Your task to perform on an android device: set the timer Image 0: 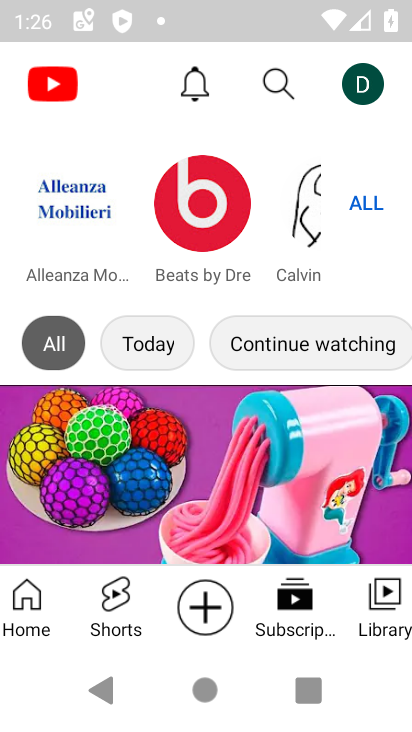
Step 0: press home button
Your task to perform on an android device: set the timer Image 1: 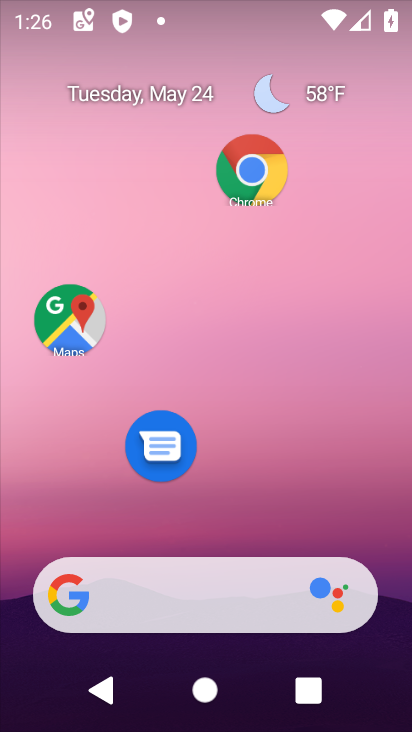
Step 1: drag from (247, 624) to (297, 108)
Your task to perform on an android device: set the timer Image 2: 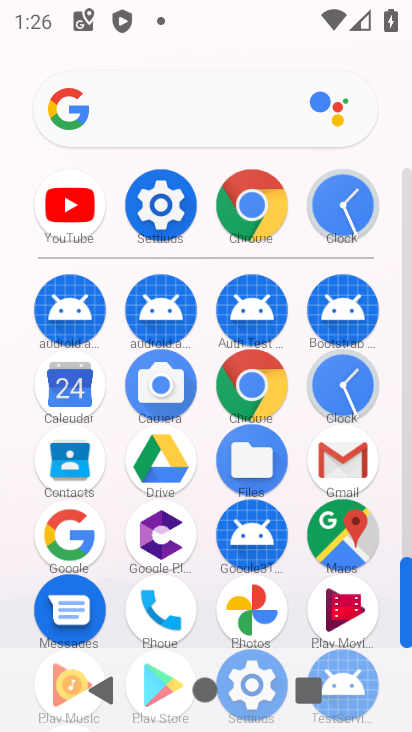
Step 2: click (346, 208)
Your task to perform on an android device: set the timer Image 3: 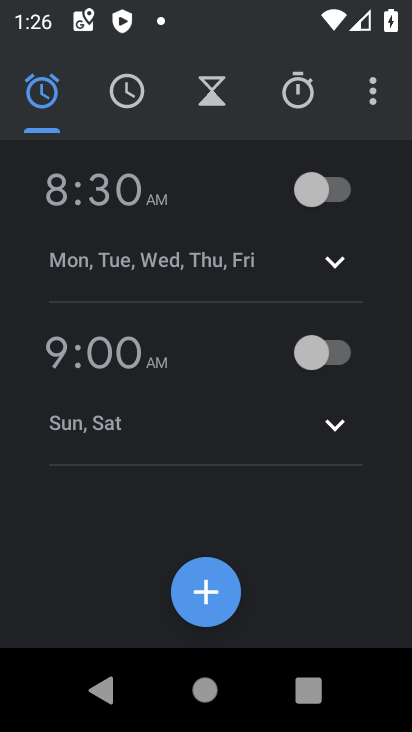
Step 3: click (214, 113)
Your task to perform on an android device: set the timer Image 4: 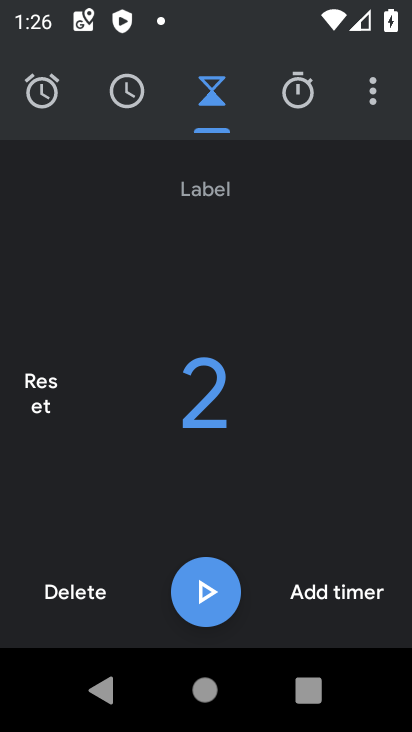
Step 4: click (211, 608)
Your task to perform on an android device: set the timer Image 5: 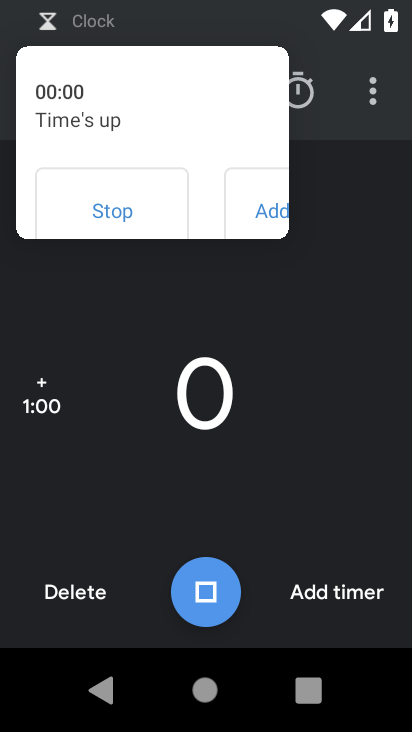
Step 5: task complete